Your task to perform on an android device: Open the web browser Image 0: 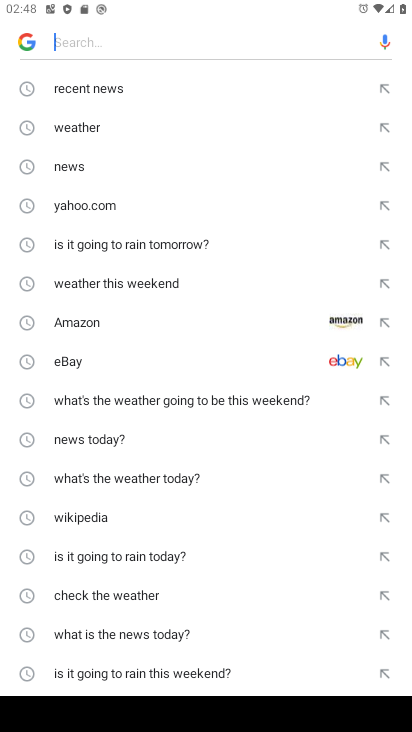
Step 0: press back button
Your task to perform on an android device: Open the web browser Image 1: 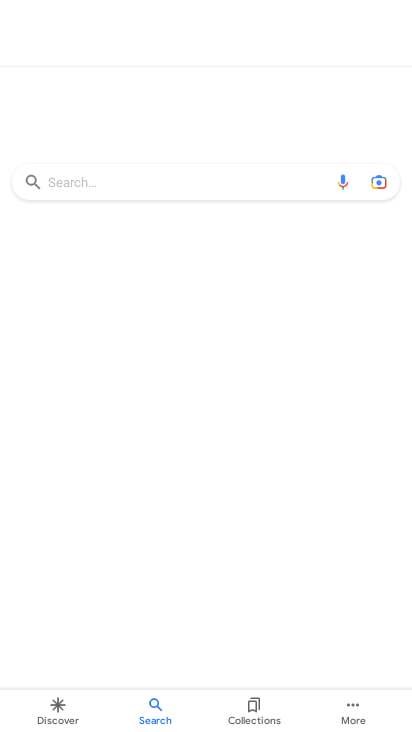
Step 1: press back button
Your task to perform on an android device: Open the web browser Image 2: 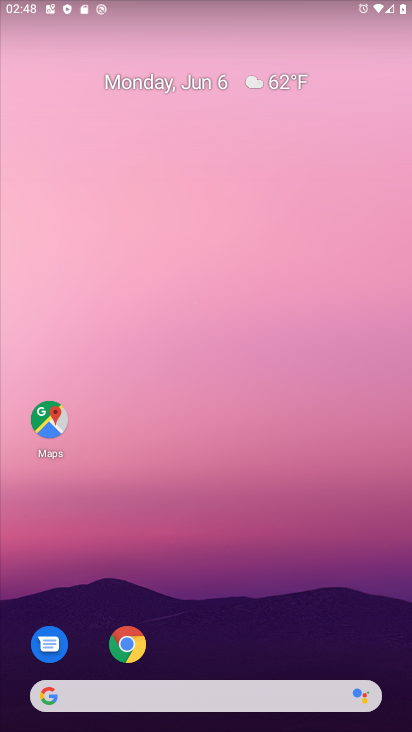
Step 2: click (143, 651)
Your task to perform on an android device: Open the web browser Image 3: 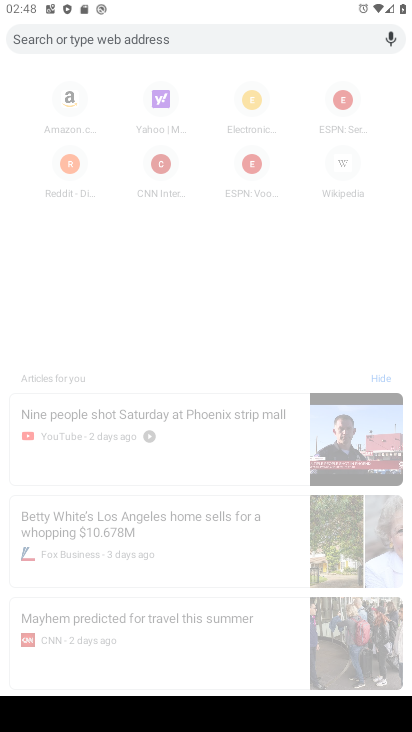
Step 3: click (202, 307)
Your task to perform on an android device: Open the web browser Image 4: 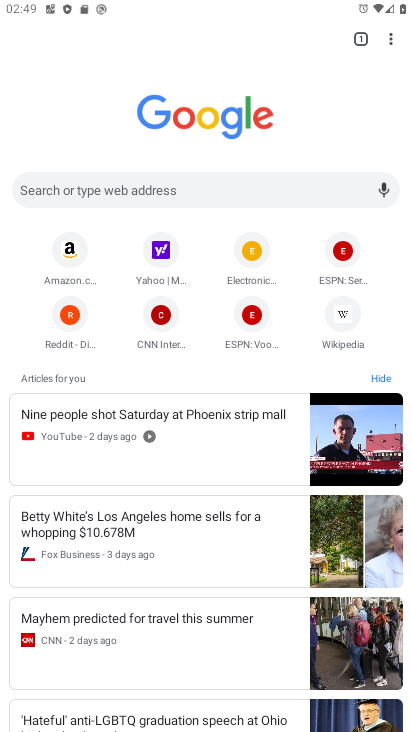
Step 4: task complete